Your task to perform on an android device: Open sound settings Image 0: 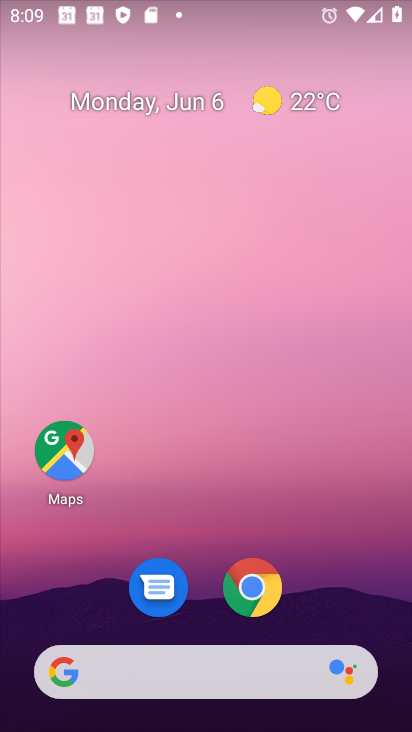
Step 0: drag from (206, 659) to (253, 331)
Your task to perform on an android device: Open sound settings Image 1: 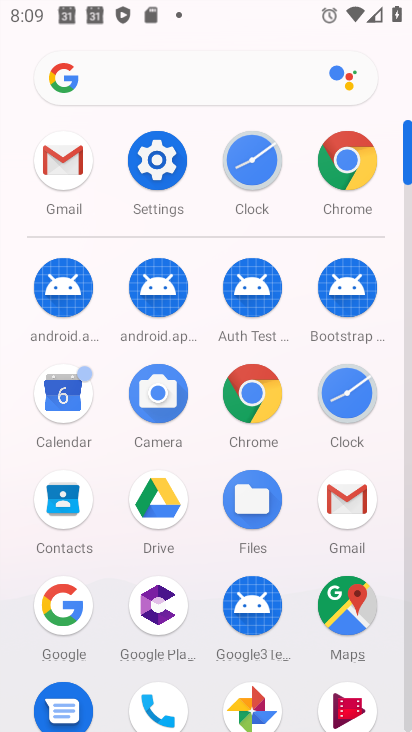
Step 1: click (158, 149)
Your task to perform on an android device: Open sound settings Image 2: 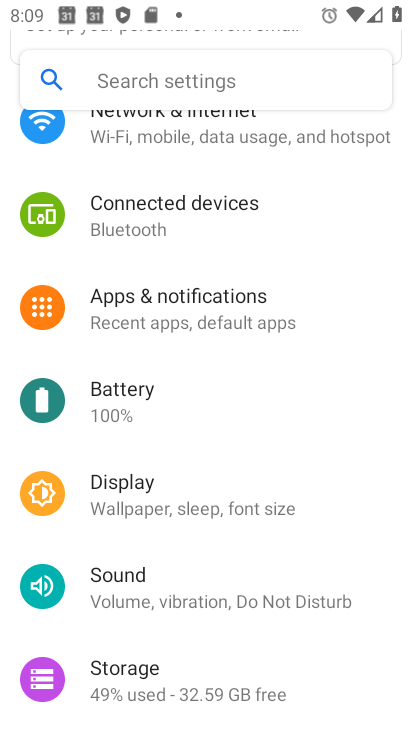
Step 2: click (141, 587)
Your task to perform on an android device: Open sound settings Image 3: 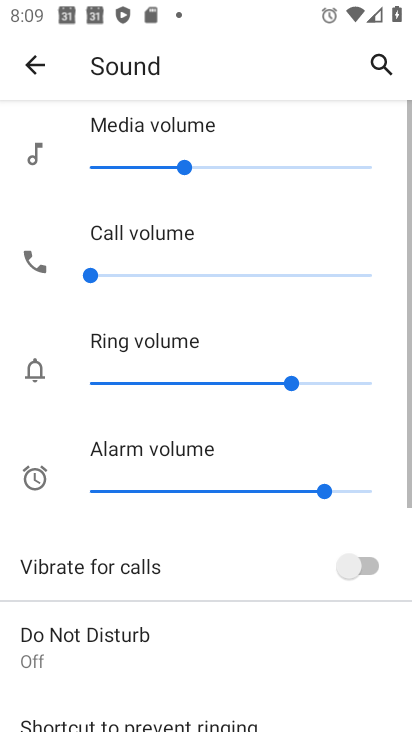
Step 3: task complete